Your task to perform on an android device: set the stopwatch Image 0: 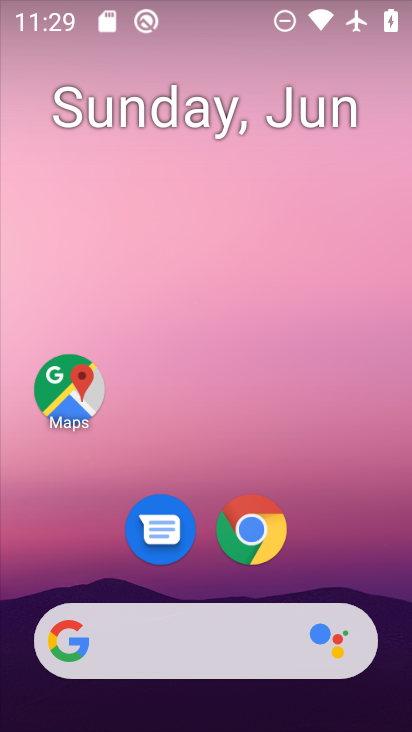
Step 0: drag from (396, 633) to (327, 6)
Your task to perform on an android device: set the stopwatch Image 1: 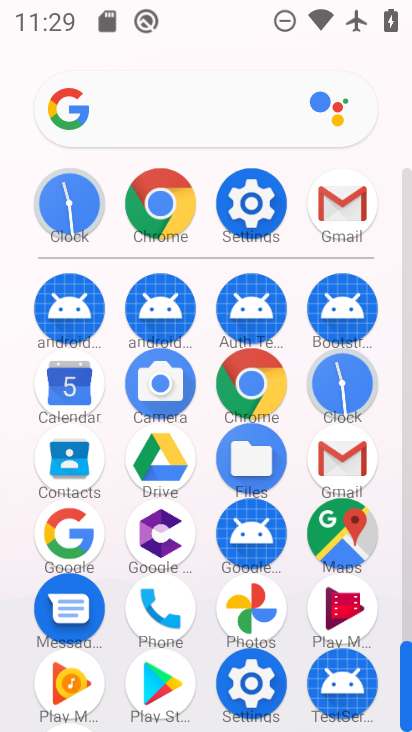
Step 1: click (341, 383)
Your task to perform on an android device: set the stopwatch Image 2: 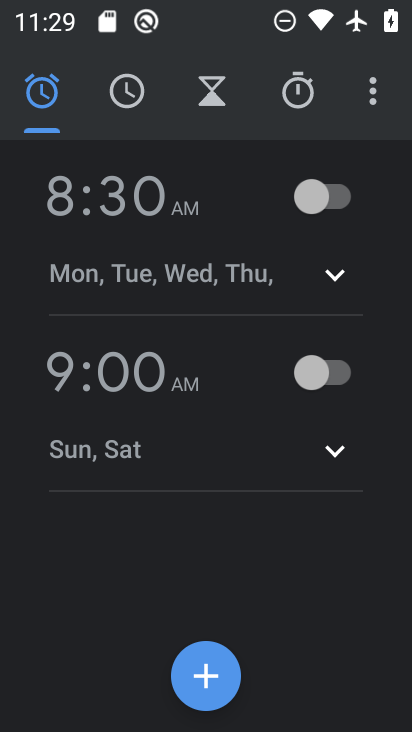
Step 2: click (296, 88)
Your task to perform on an android device: set the stopwatch Image 3: 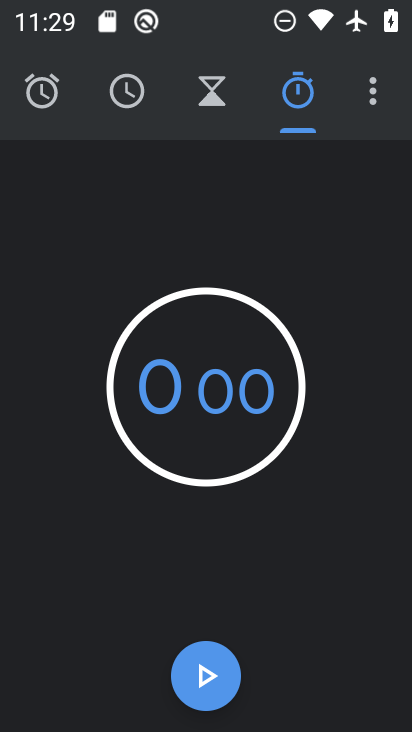
Step 3: task complete